Your task to perform on an android device: turn off wifi Image 0: 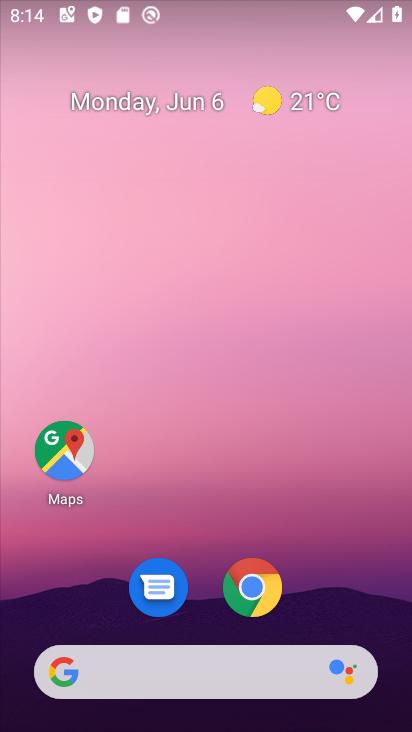
Step 0: drag from (309, 716) to (324, 6)
Your task to perform on an android device: turn off wifi Image 1: 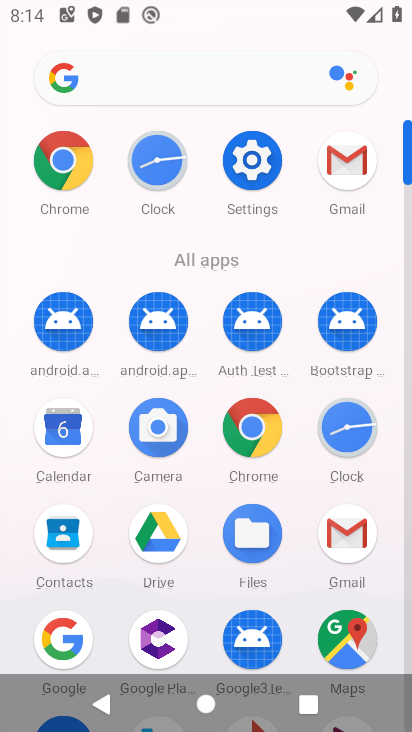
Step 1: click (257, 154)
Your task to perform on an android device: turn off wifi Image 2: 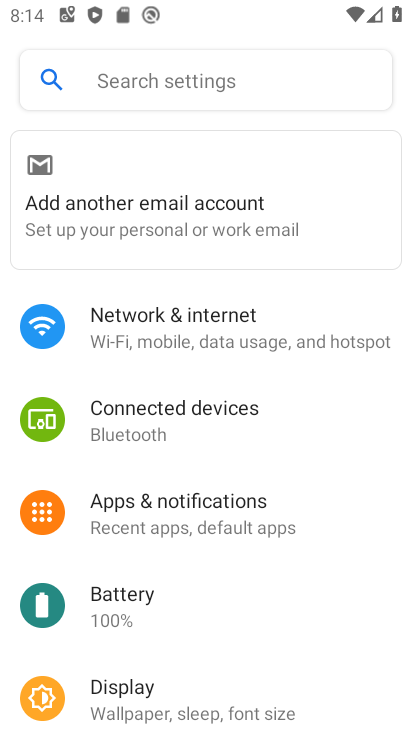
Step 2: click (203, 328)
Your task to perform on an android device: turn off wifi Image 3: 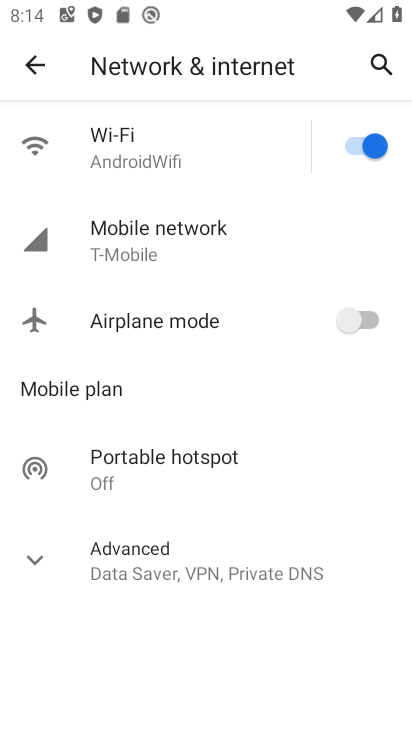
Step 3: click (366, 137)
Your task to perform on an android device: turn off wifi Image 4: 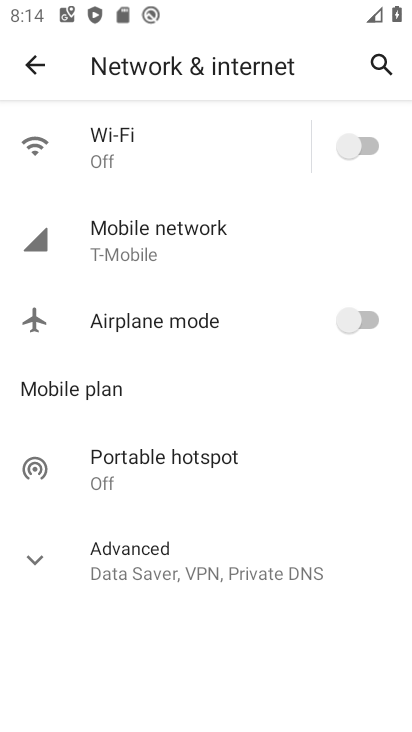
Step 4: task complete